Your task to perform on an android device: Go to Google maps Image 0: 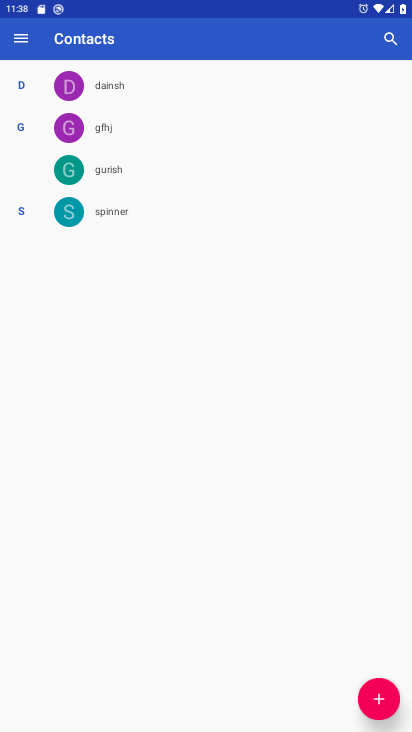
Step 0: press home button
Your task to perform on an android device: Go to Google maps Image 1: 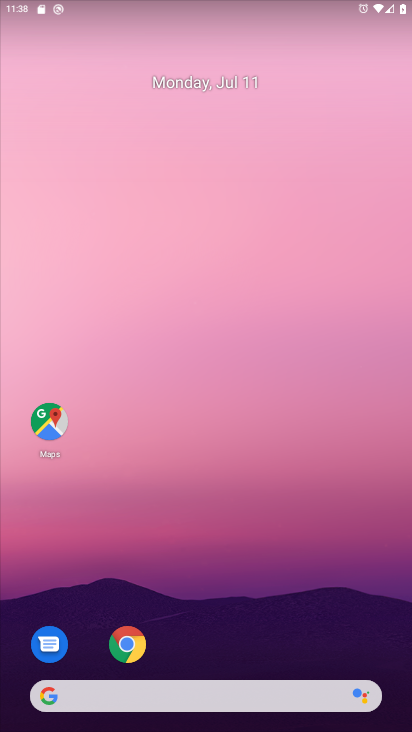
Step 1: click (50, 430)
Your task to perform on an android device: Go to Google maps Image 2: 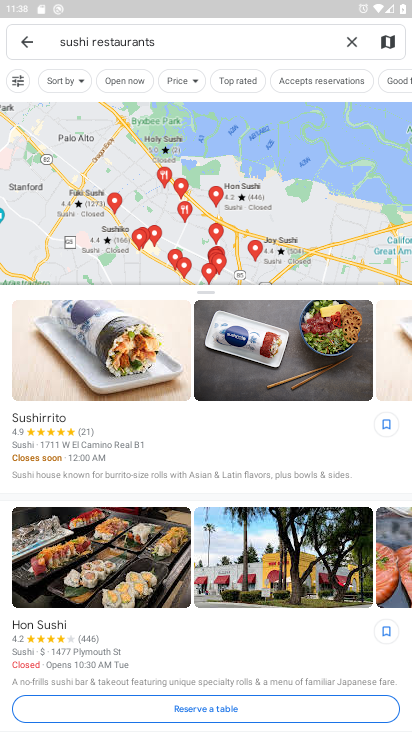
Step 2: click (26, 53)
Your task to perform on an android device: Go to Google maps Image 3: 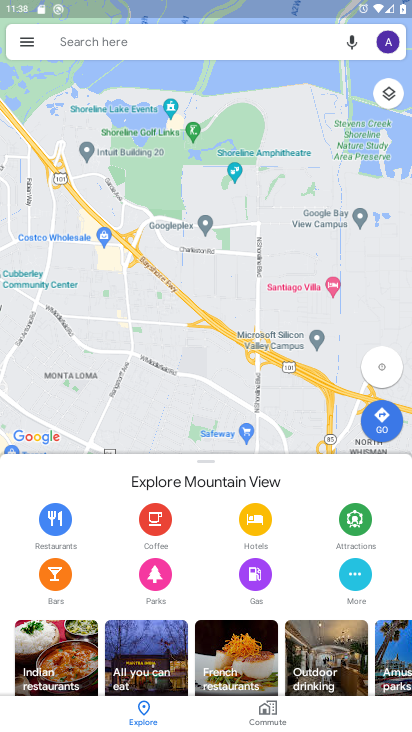
Step 3: task complete